Your task to perform on an android device: Add macbook pro 13 inch to the cart on amazon Image 0: 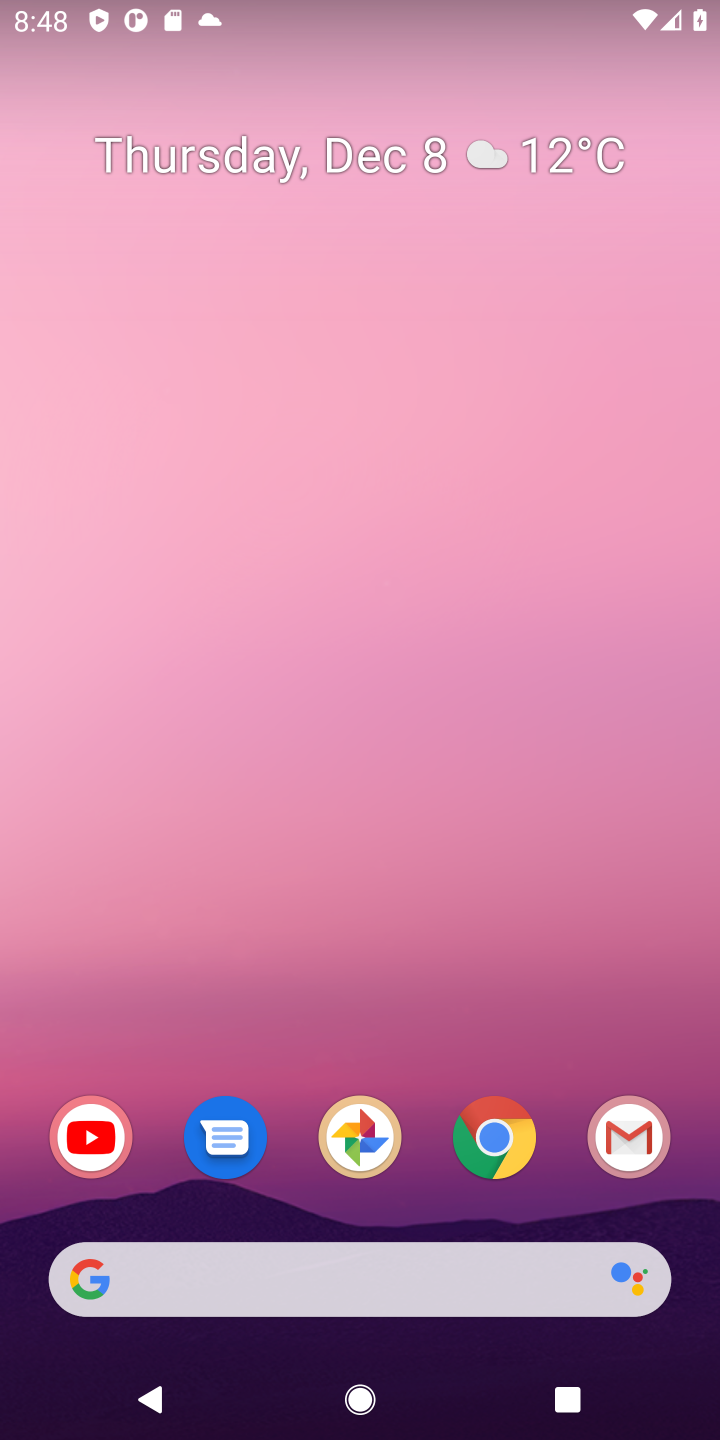
Step 0: click (481, 1160)
Your task to perform on an android device: Add macbook pro 13 inch to the cart on amazon Image 1: 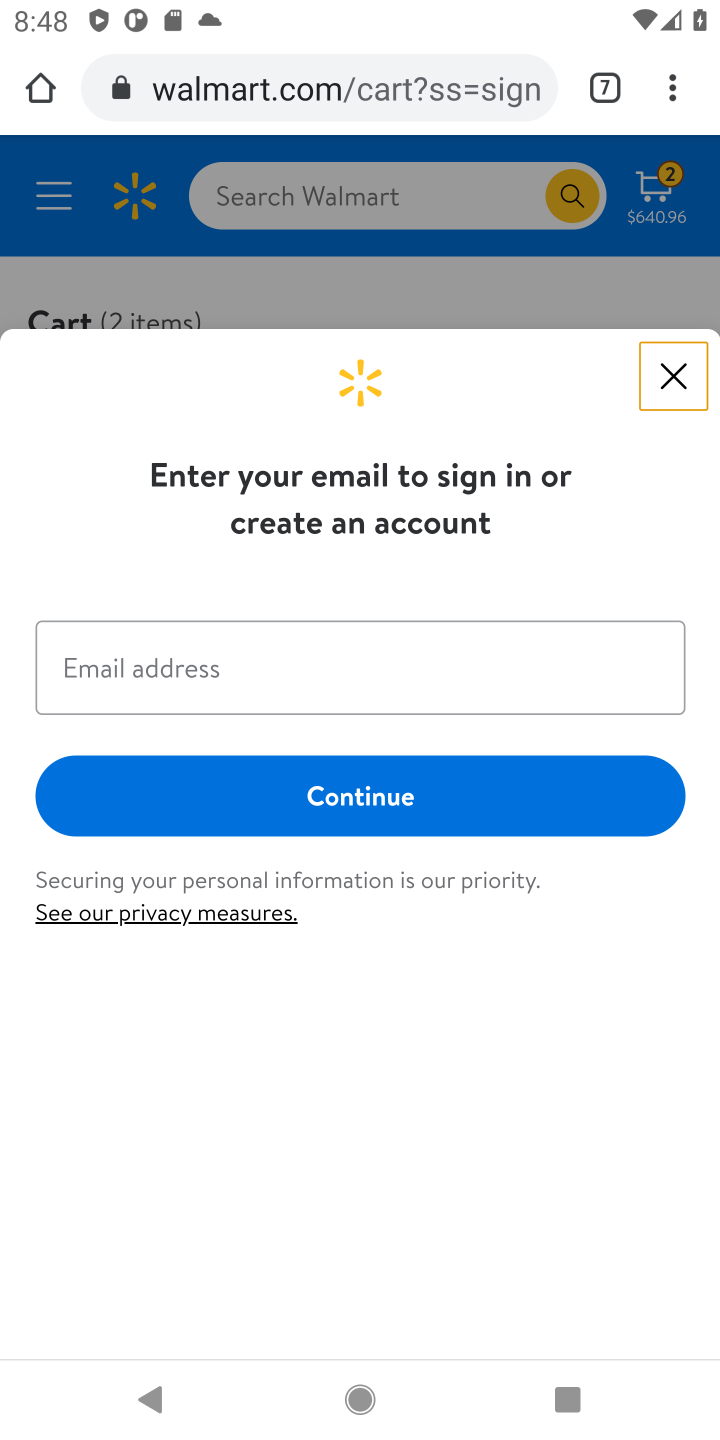
Step 1: click (595, 87)
Your task to perform on an android device: Add macbook pro 13 inch to the cart on amazon Image 2: 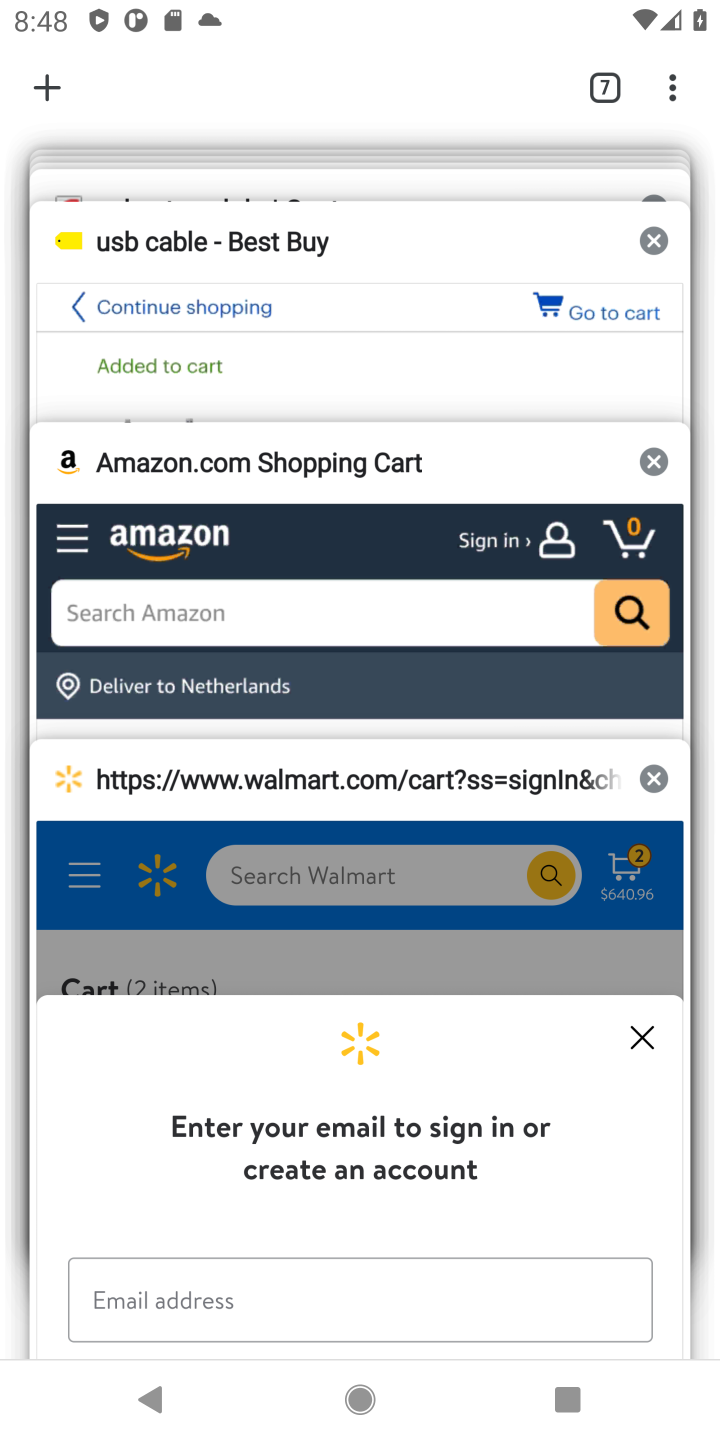
Step 2: click (456, 523)
Your task to perform on an android device: Add macbook pro 13 inch to the cart on amazon Image 3: 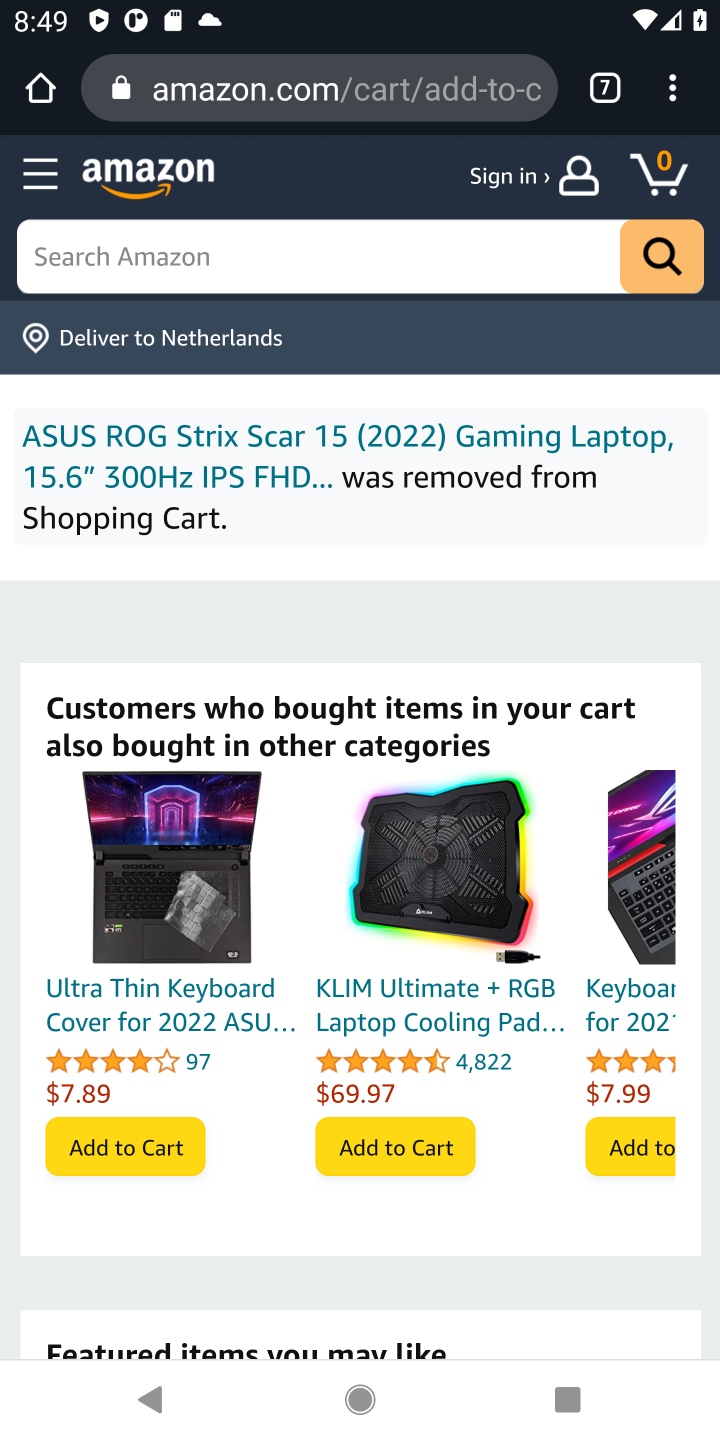
Step 3: click (351, 254)
Your task to perform on an android device: Add macbook pro 13 inch to the cart on amazon Image 4: 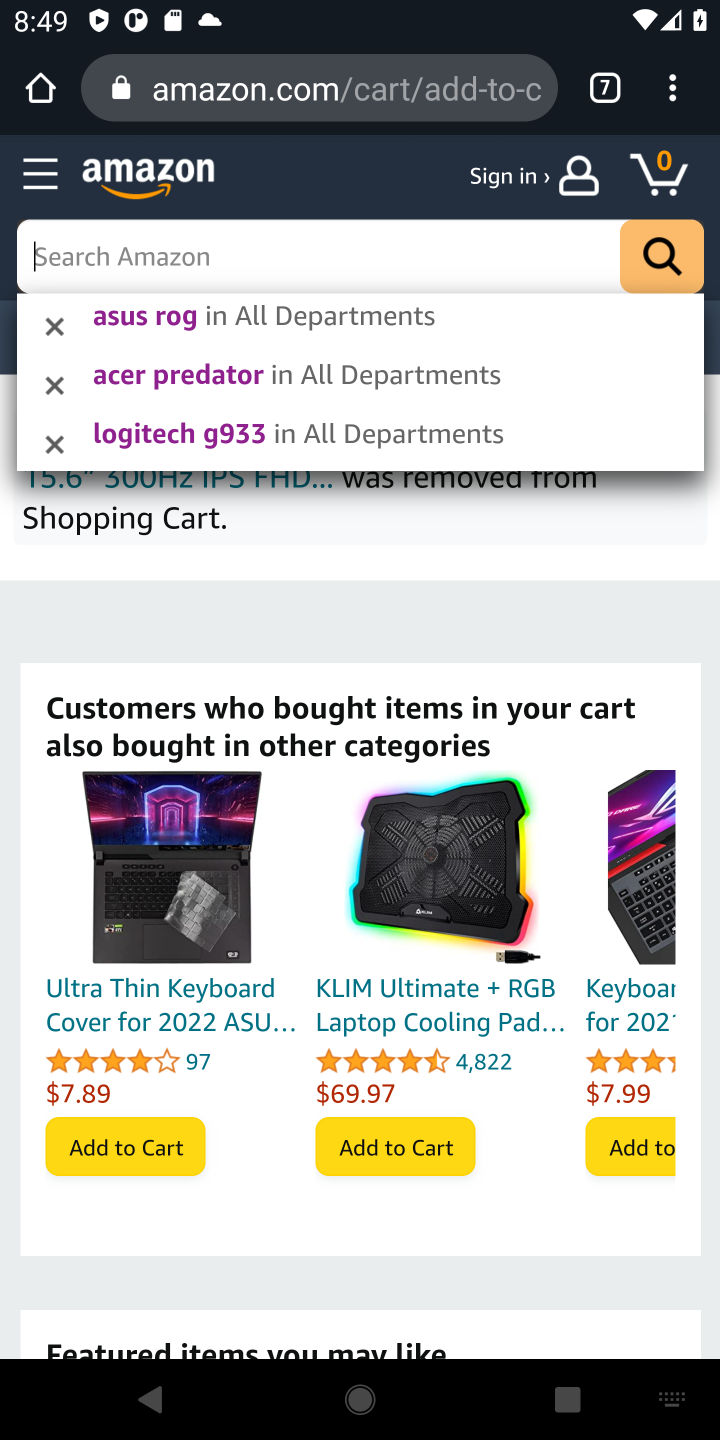
Step 4: type "macbook pro 13 inch"
Your task to perform on an android device: Add macbook pro 13 inch to the cart on amazon Image 5: 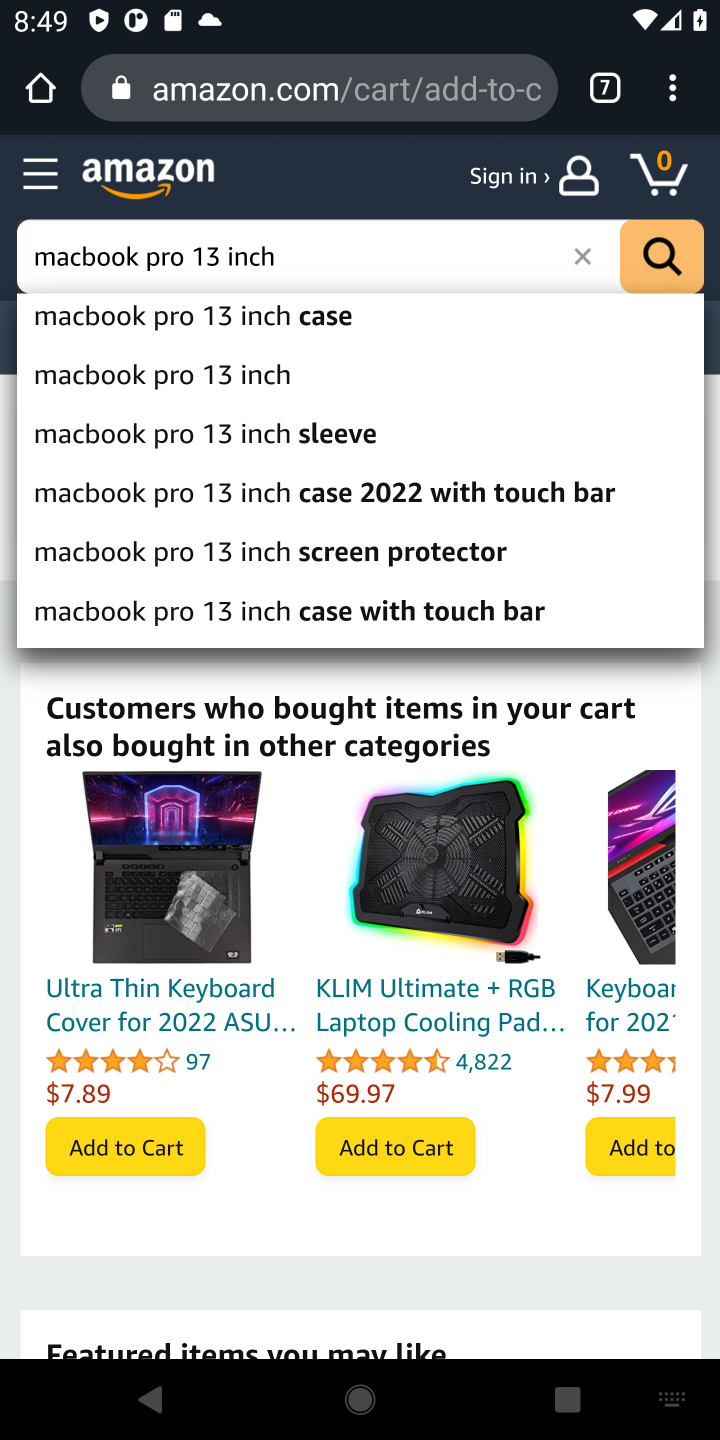
Step 5: click (225, 364)
Your task to perform on an android device: Add macbook pro 13 inch to the cart on amazon Image 6: 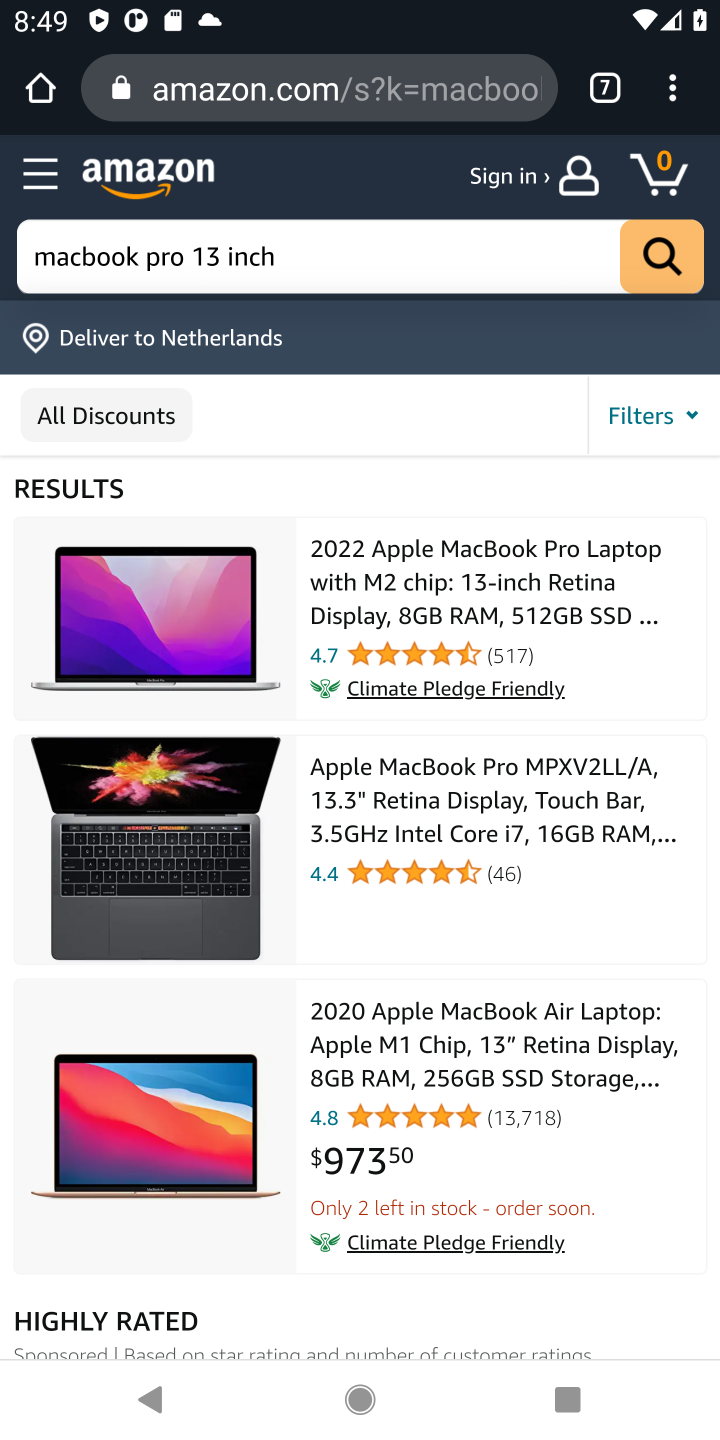
Step 6: click (460, 570)
Your task to perform on an android device: Add macbook pro 13 inch to the cart on amazon Image 7: 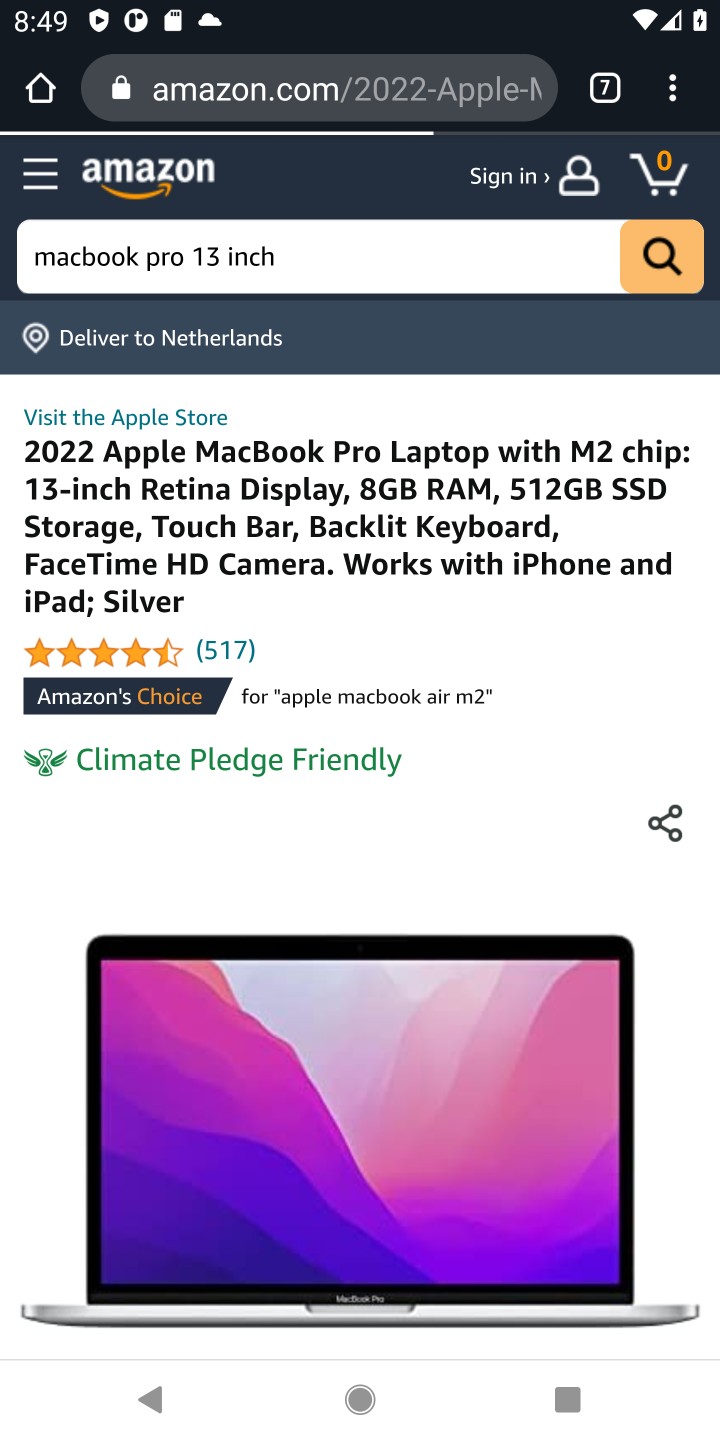
Step 7: drag from (290, 1176) to (363, 453)
Your task to perform on an android device: Add macbook pro 13 inch to the cart on amazon Image 8: 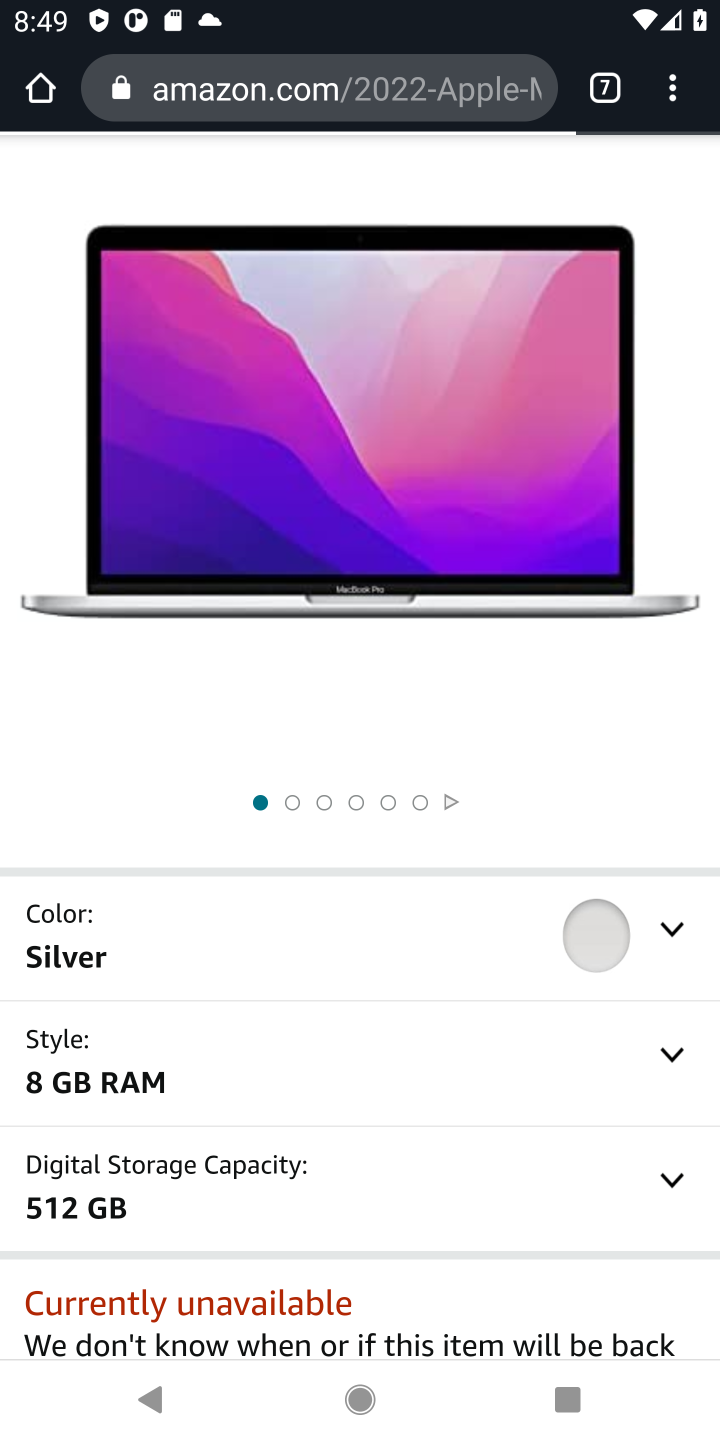
Step 8: drag from (376, 1139) to (466, 550)
Your task to perform on an android device: Add macbook pro 13 inch to the cart on amazon Image 9: 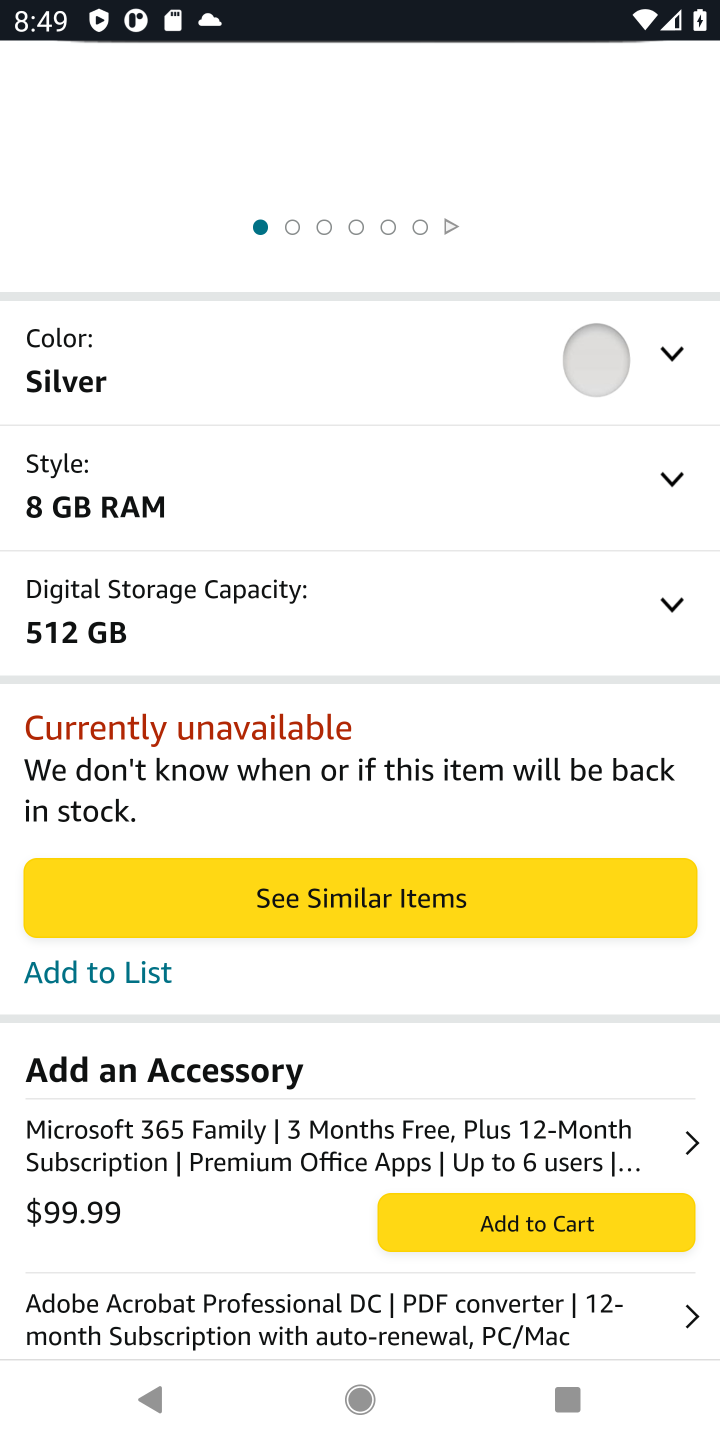
Step 9: click (377, 892)
Your task to perform on an android device: Add macbook pro 13 inch to the cart on amazon Image 10: 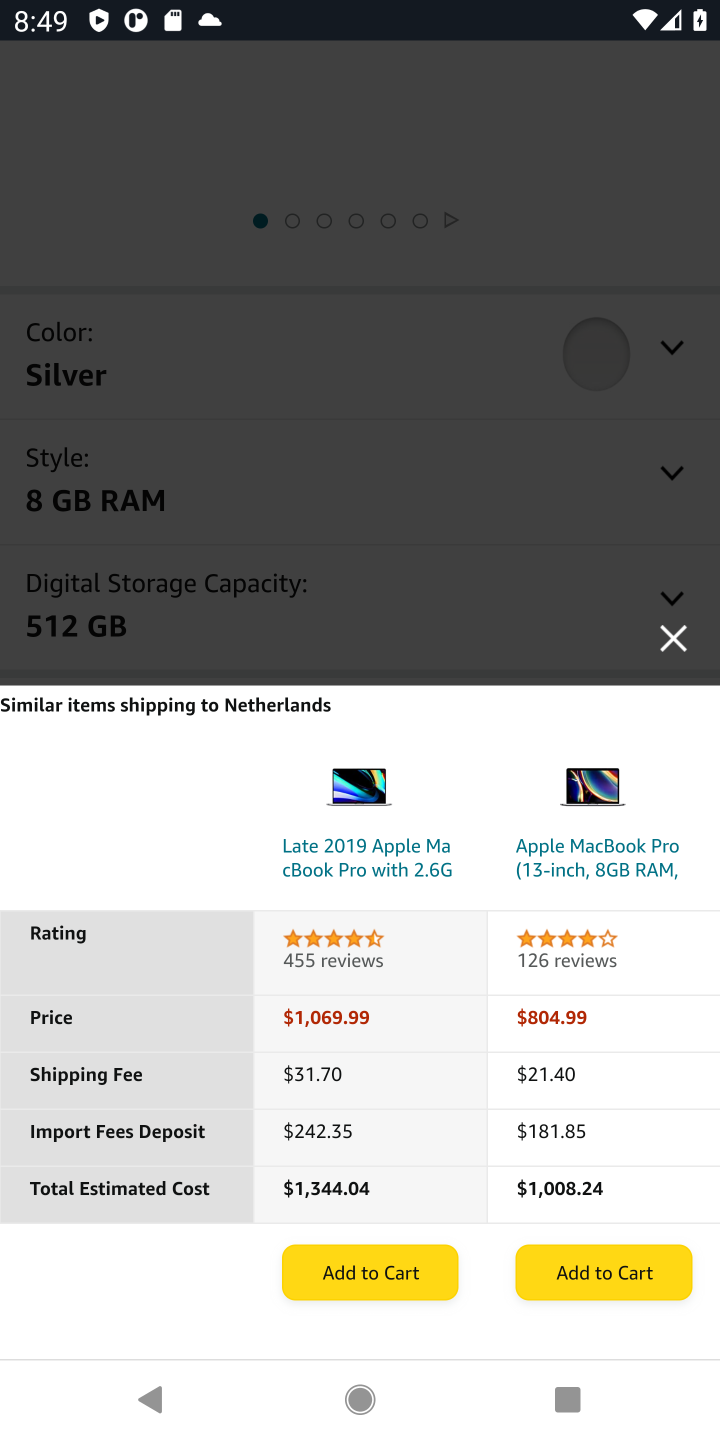
Step 10: click (363, 1281)
Your task to perform on an android device: Add macbook pro 13 inch to the cart on amazon Image 11: 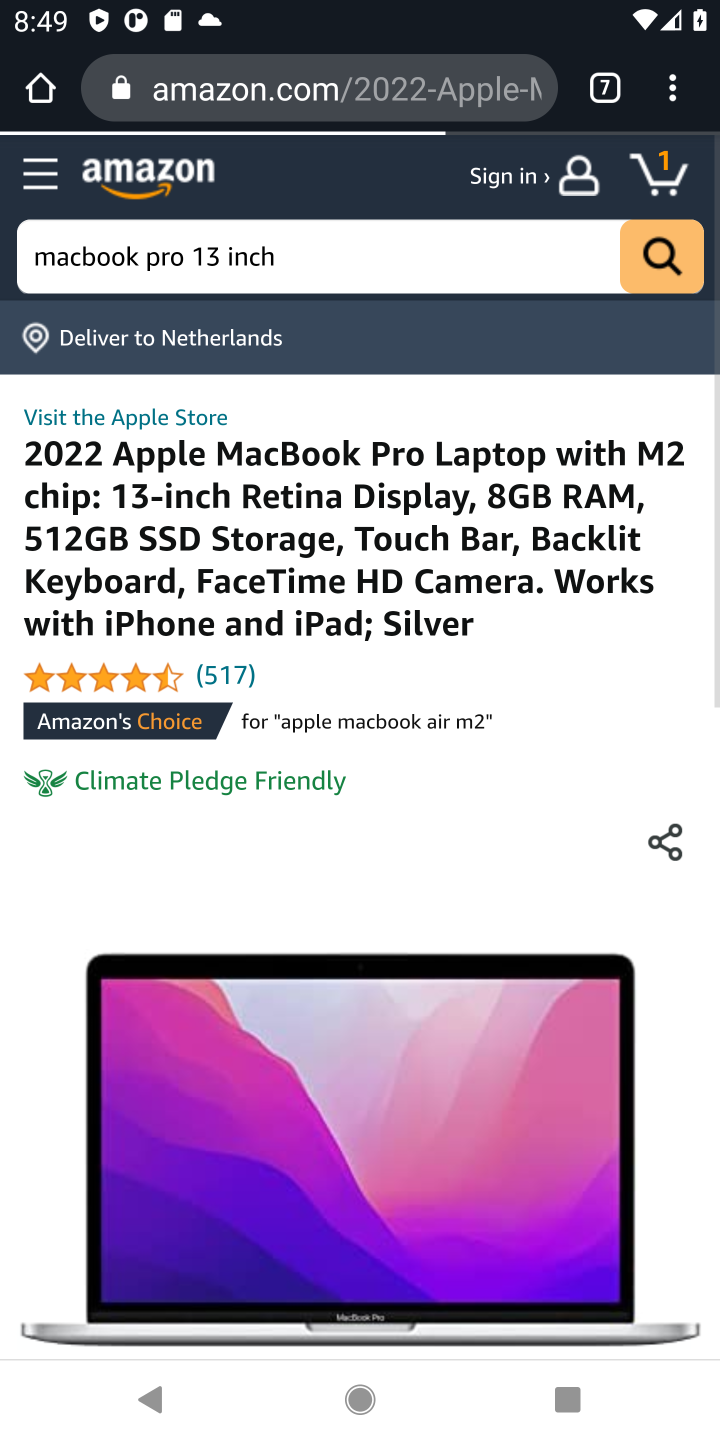
Step 11: task complete